Your task to perform on an android device: Open Android settings Image 0: 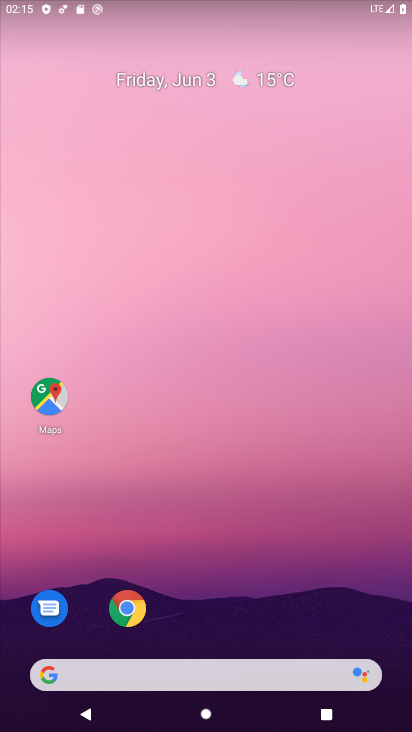
Step 0: drag from (254, 569) to (178, 183)
Your task to perform on an android device: Open Android settings Image 1: 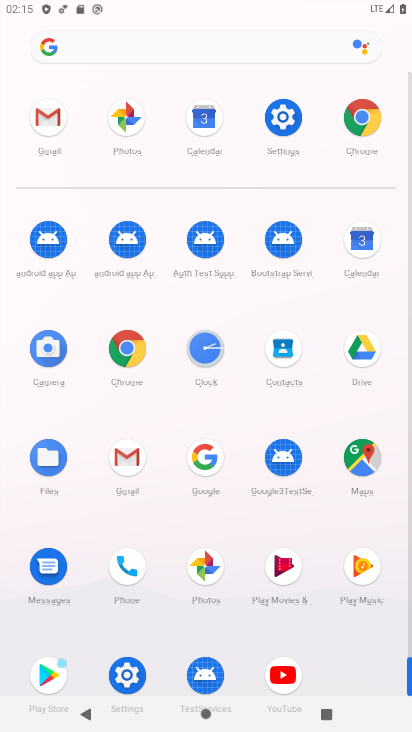
Step 1: click (278, 128)
Your task to perform on an android device: Open Android settings Image 2: 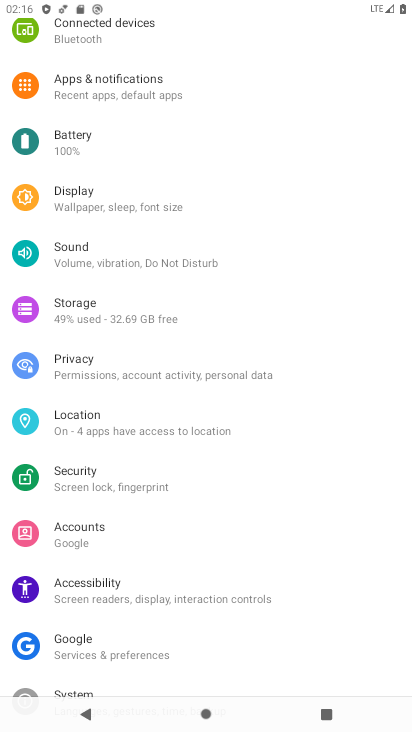
Step 2: task complete